Your task to perform on an android device: turn off sleep mode Image 0: 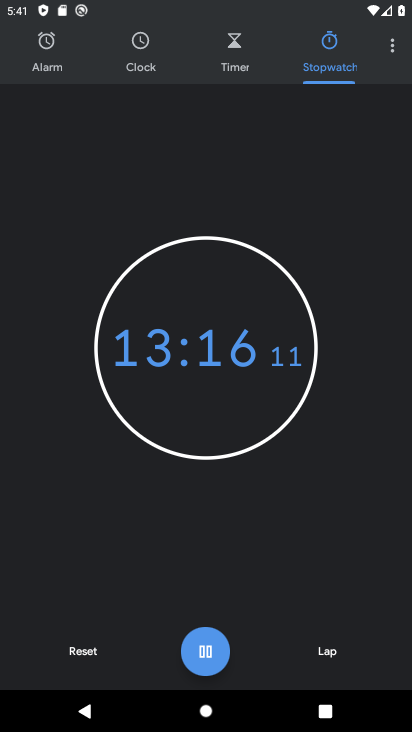
Step 0: press home button
Your task to perform on an android device: turn off sleep mode Image 1: 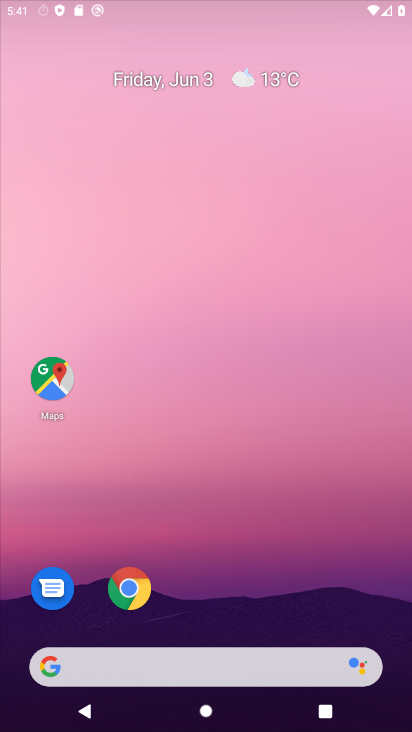
Step 1: drag from (253, 553) to (275, 120)
Your task to perform on an android device: turn off sleep mode Image 2: 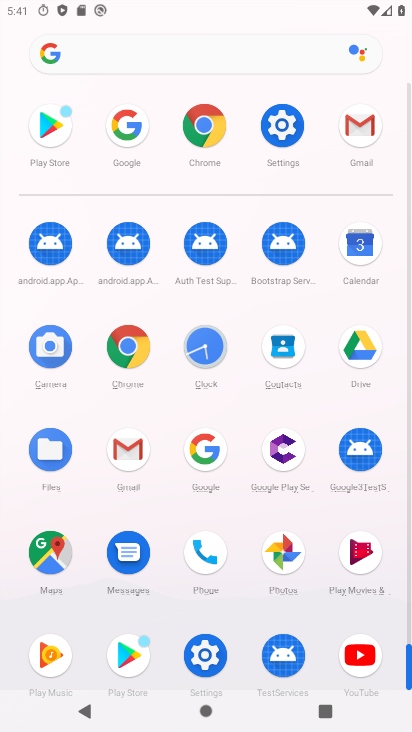
Step 2: click (207, 651)
Your task to perform on an android device: turn off sleep mode Image 3: 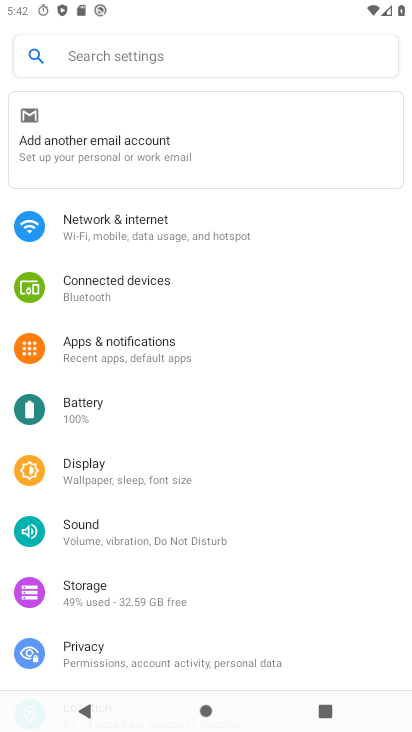
Step 3: task complete